Your task to perform on an android device: open sync settings in chrome Image 0: 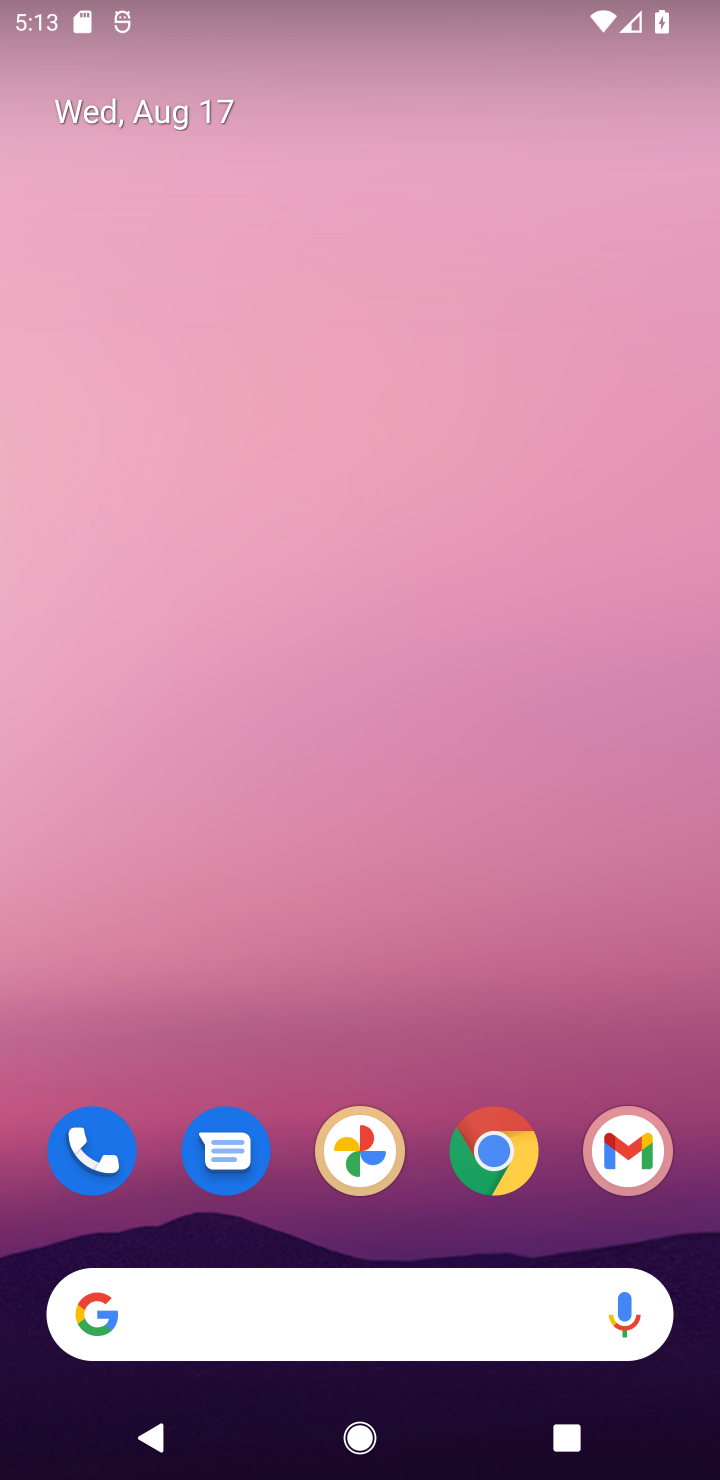
Step 0: click (527, 1160)
Your task to perform on an android device: open sync settings in chrome Image 1: 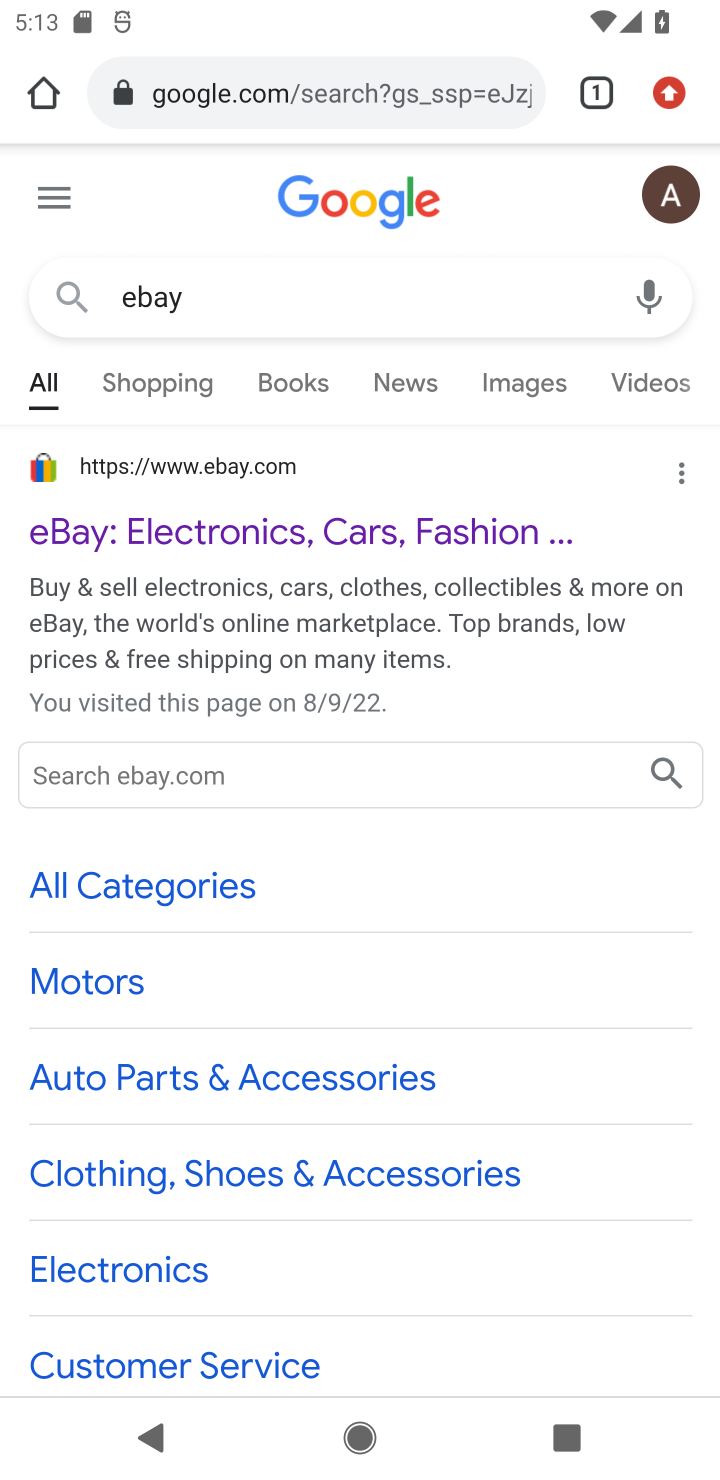
Step 1: click (657, 75)
Your task to perform on an android device: open sync settings in chrome Image 2: 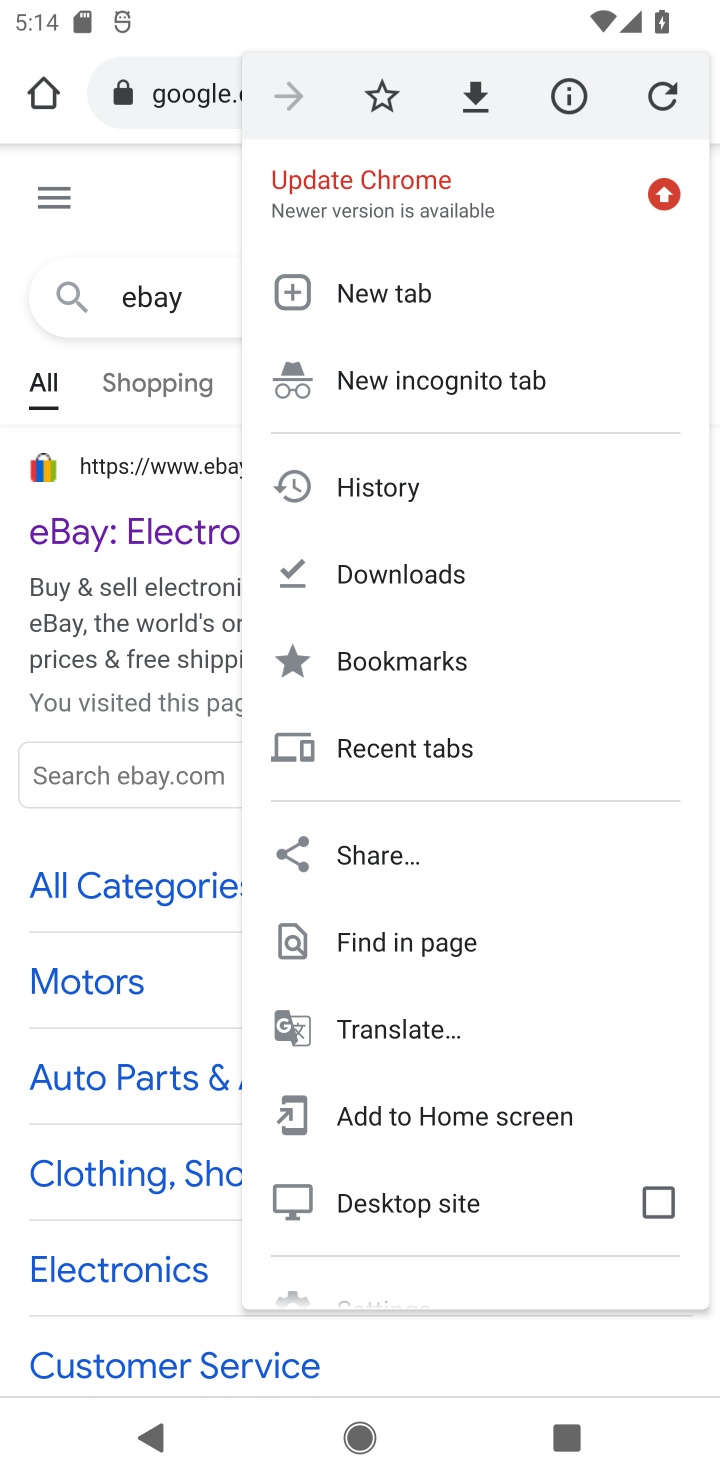
Step 2: drag from (377, 1251) to (369, 850)
Your task to perform on an android device: open sync settings in chrome Image 3: 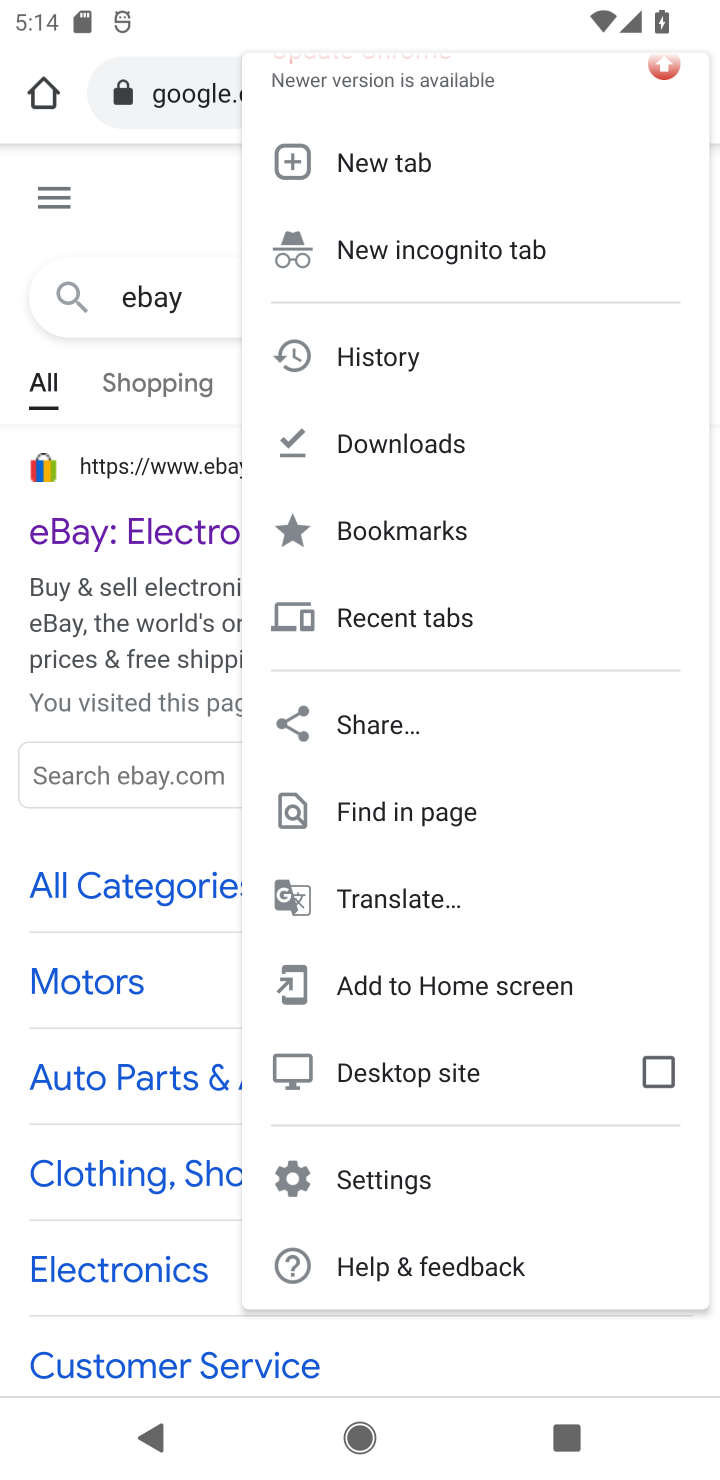
Step 3: click (431, 1150)
Your task to perform on an android device: open sync settings in chrome Image 4: 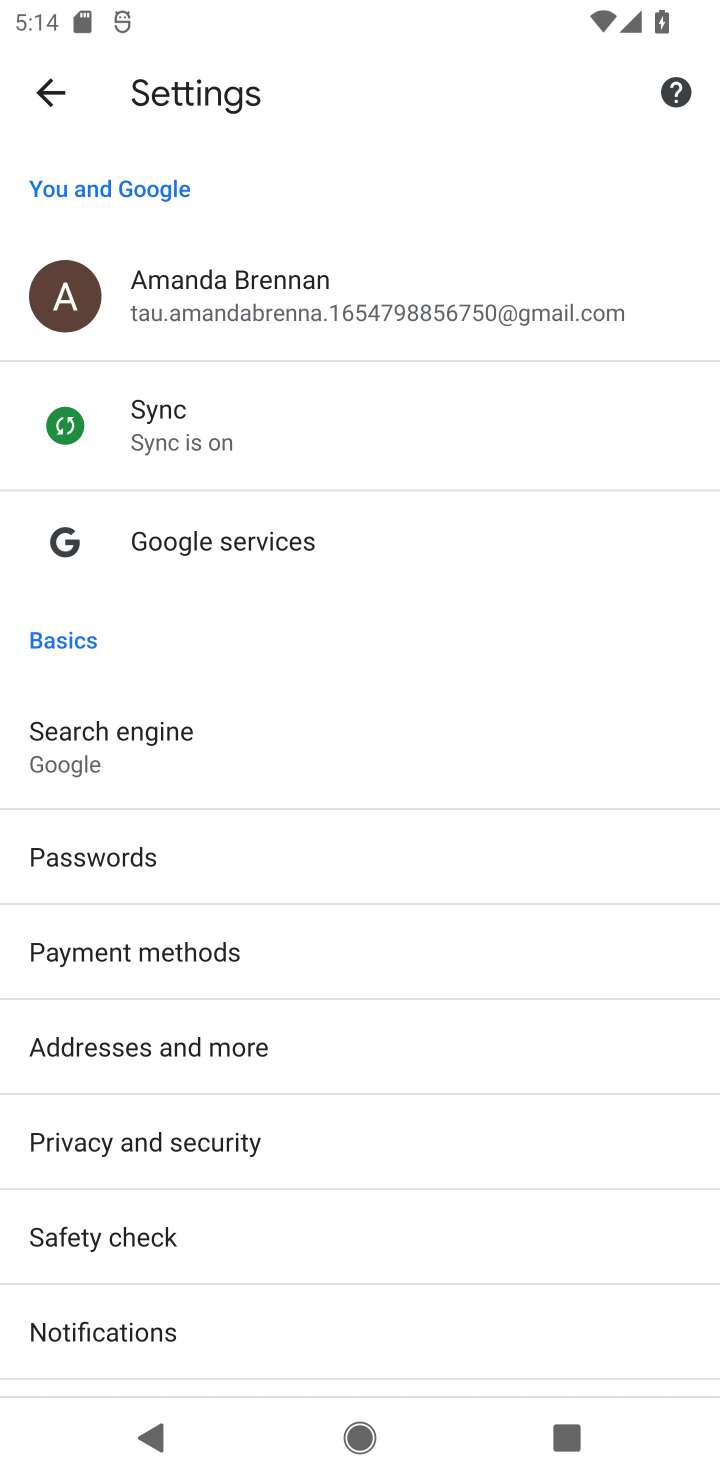
Step 4: click (189, 460)
Your task to perform on an android device: open sync settings in chrome Image 5: 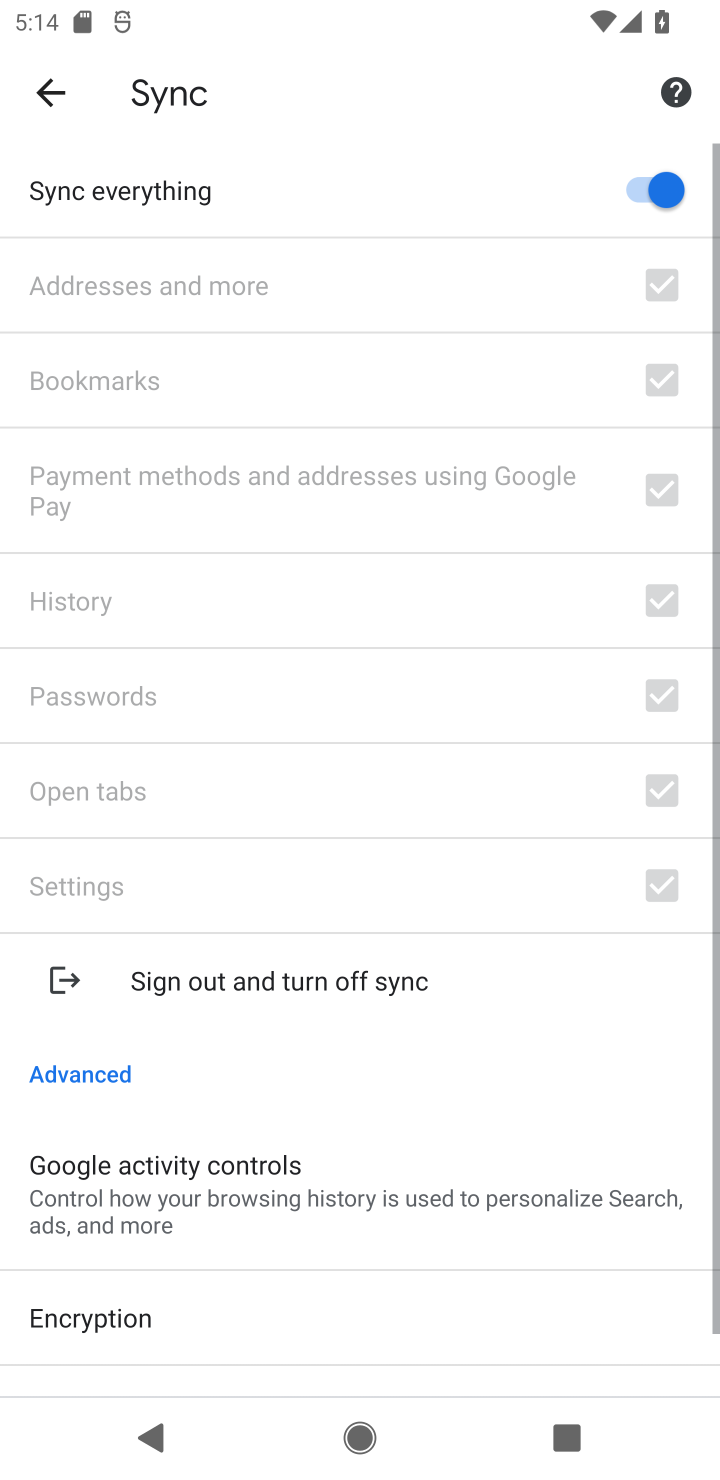
Step 5: task complete